Your task to perform on an android device: Open settings Image 0: 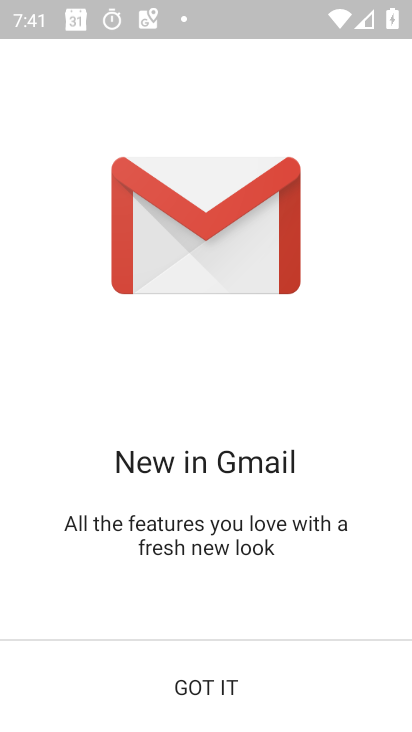
Step 0: press home button
Your task to perform on an android device: Open settings Image 1: 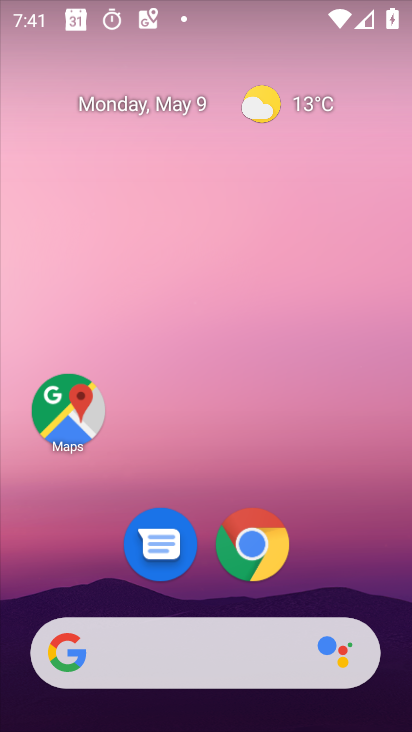
Step 1: drag from (341, 519) to (137, 49)
Your task to perform on an android device: Open settings Image 2: 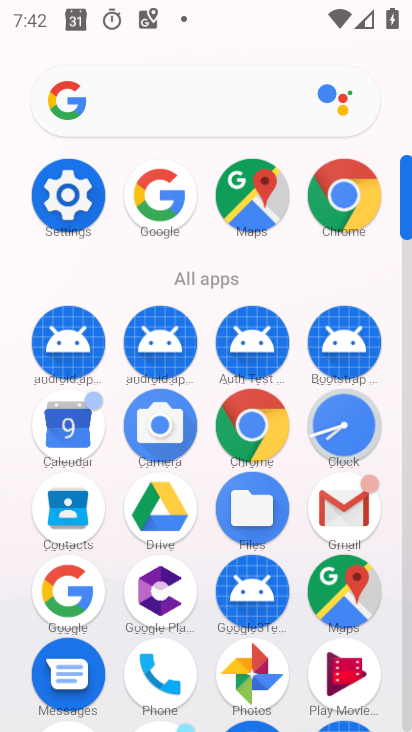
Step 2: click (78, 244)
Your task to perform on an android device: Open settings Image 3: 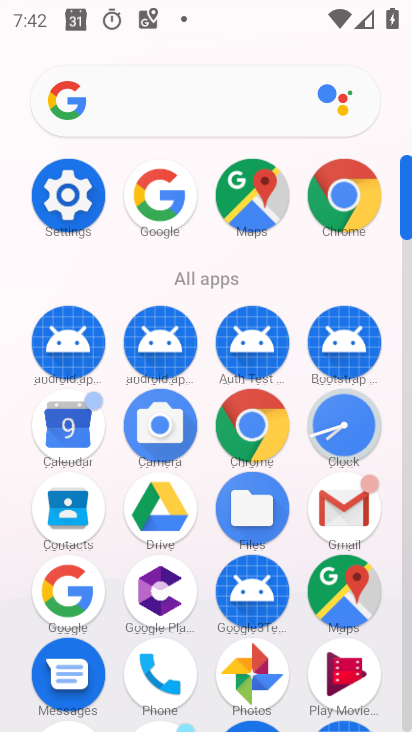
Step 3: click (83, 220)
Your task to perform on an android device: Open settings Image 4: 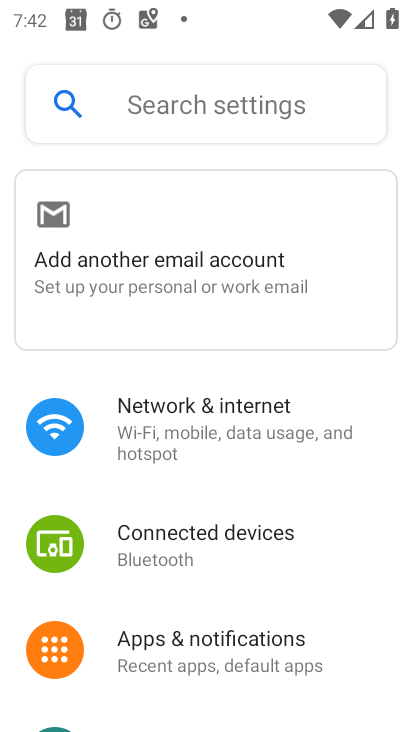
Step 4: task complete